Your task to perform on an android device: Open calendar and show me the second week of next month Image 0: 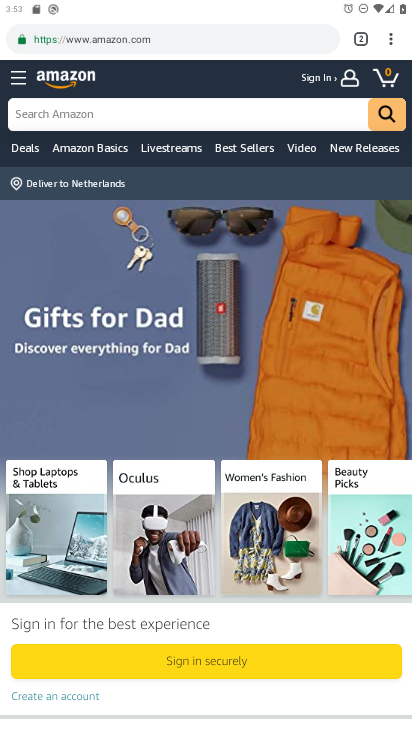
Step 0: press home button
Your task to perform on an android device: Open calendar and show me the second week of next month Image 1: 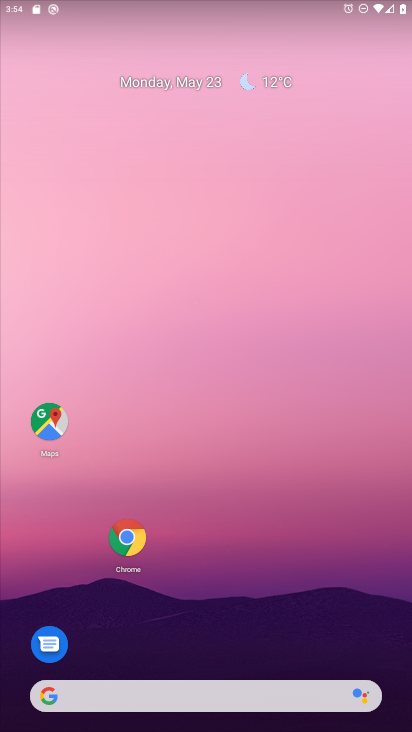
Step 1: drag from (261, 543) to (318, 146)
Your task to perform on an android device: Open calendar and show me the second week of next month Image 2: 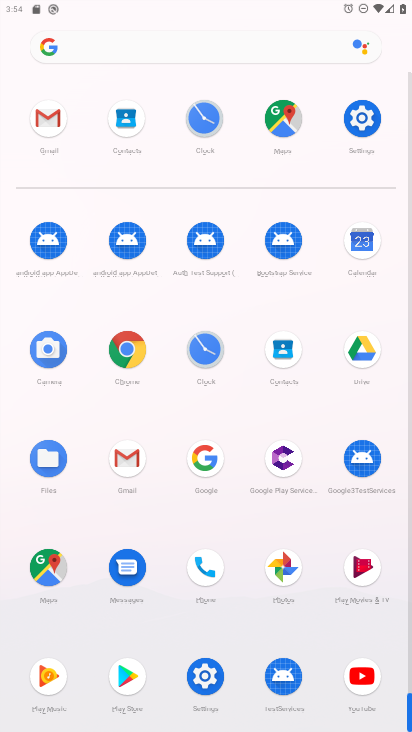
Step 2: click (357, 245)
Your task to perform on an android device: Open calendar and show me the second week of next month Image 3: 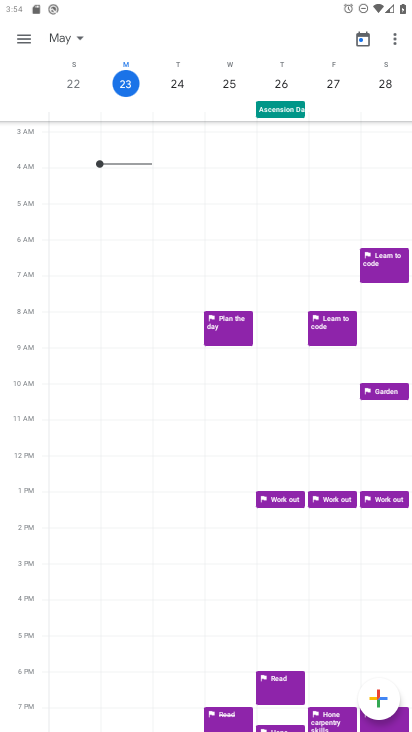
Step 3: click (55, 35)
Your task to perform on an android device: Open calendar and show me the second week of next month Image 4: 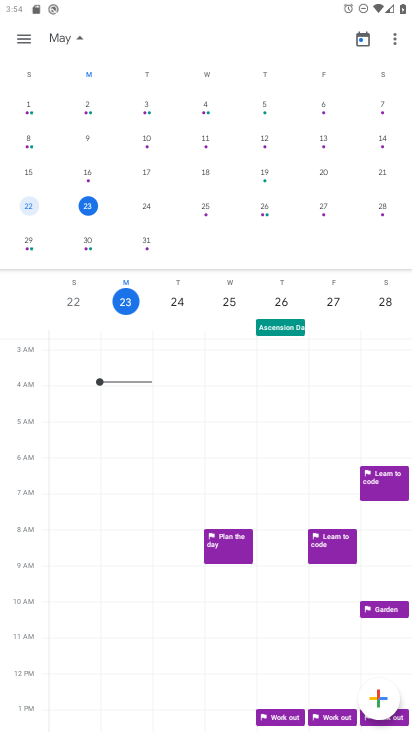
Step 4: drag from (399, 205) to (46, 170)
Your task to perform on an android device: Open calendar and show me the second week of next month Image 5: 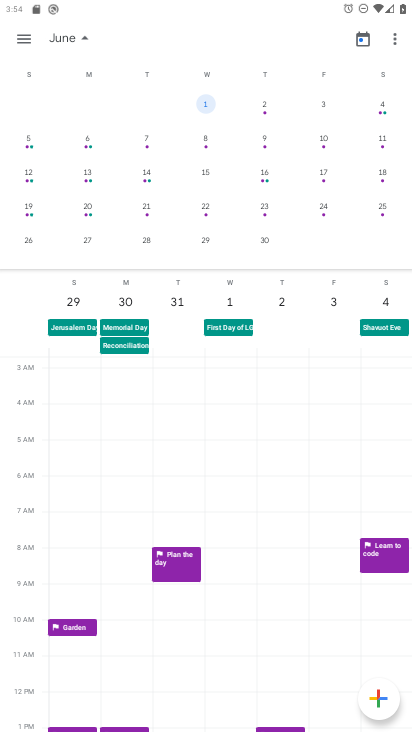
Step 5: click (29, 169)
Your task to perform on an android device: Open calendar and show me the second week of next month Image 6: 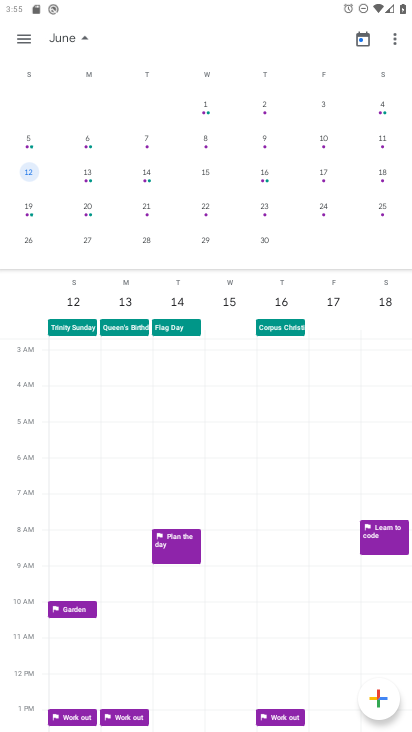
Step 6: task complete